Your task to perform on an android device: Is it going to rain tomorrow? Image 0: 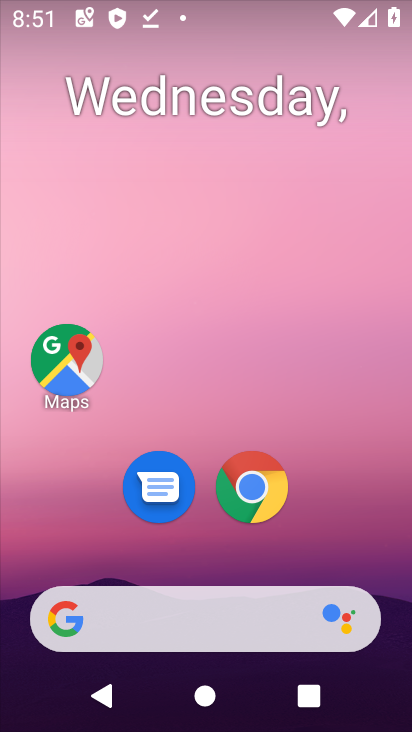
Step 0: drag from (194, 255) to (198, 132)
Your task to perform on an android device: Is it going to rain tomorrow? Image 1: 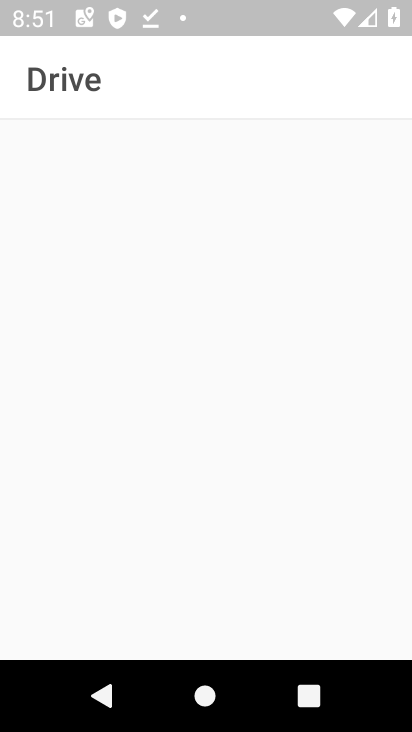
Step 1: drag from (257, 572) to (198, 202)
Your task to perform on an android device: Is it going to rain tomorrow? Image 2: 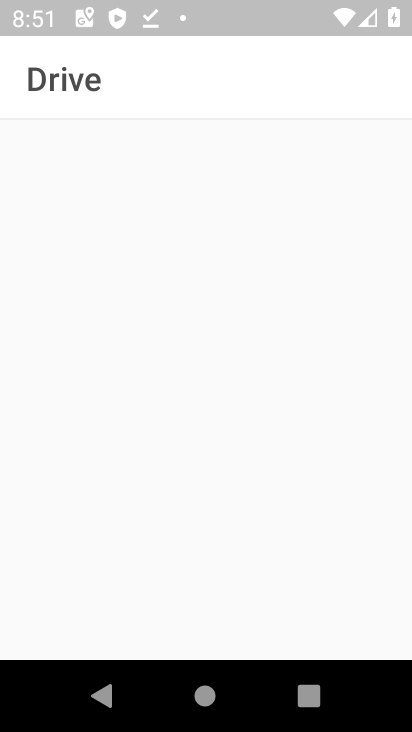
Step 2: press back button
Your task to perform on an android device: Is it going to rain tomorrow? Image 3: 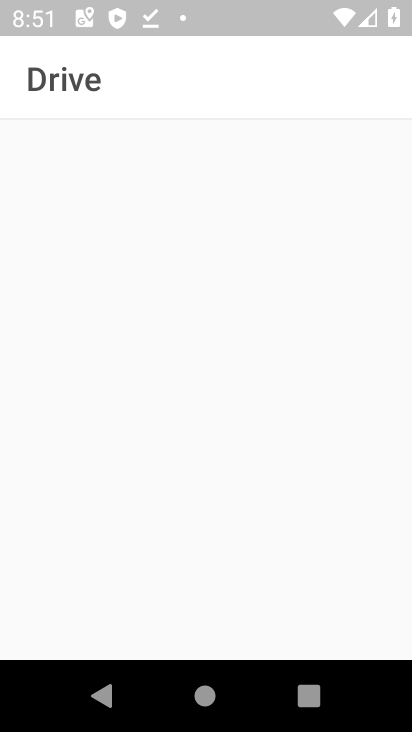
Step 3: click (153, 216)
Your task to perform on an android device: Is it going to rain tomorrow? Image 4: 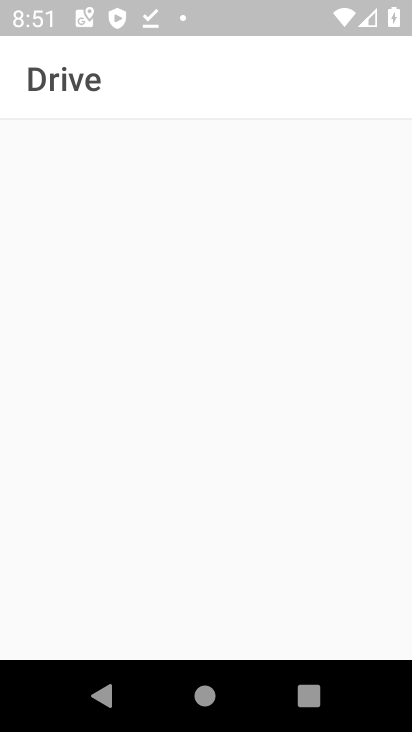
Step 4: press back button
Your task to perform on an android device: Is it going to rain tomorrow? Image 5: 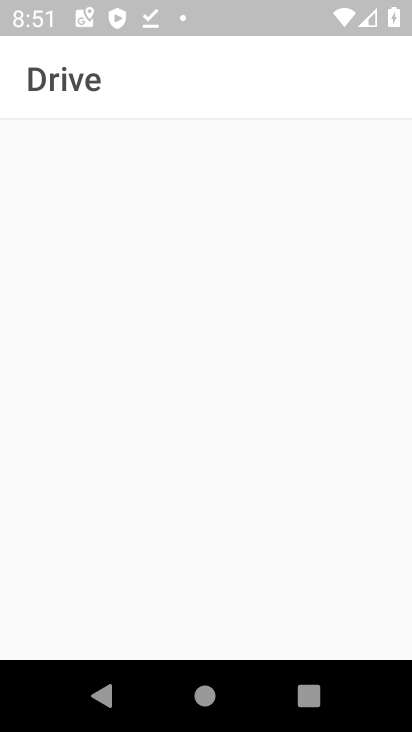
Step 5: press home button
Your task to perform on an android device: Is it going to rain tomorrow? Image 6: 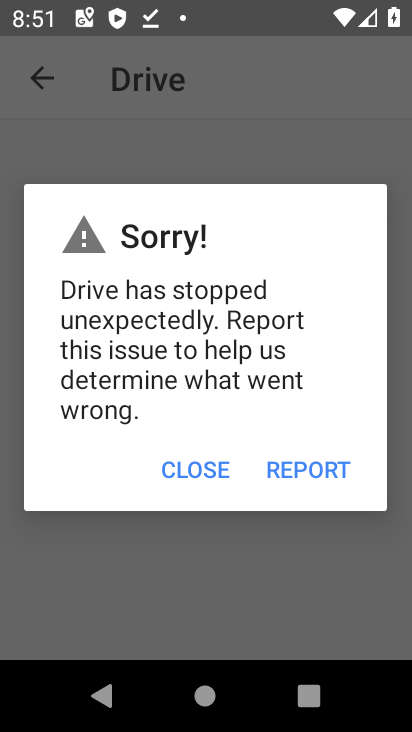
Step 6: press home button
Your task to perform on an android device: Is it going to rain tomorrow? Image 7: 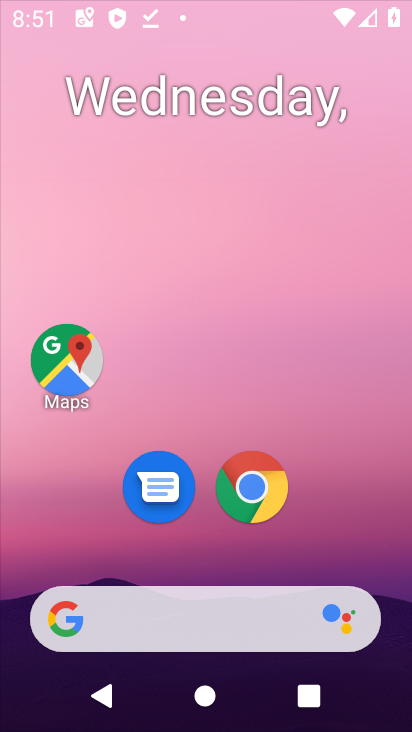
Step 7: press back button
Your task to perform on an android device: Is it going to rain tomorrow? Image 8: 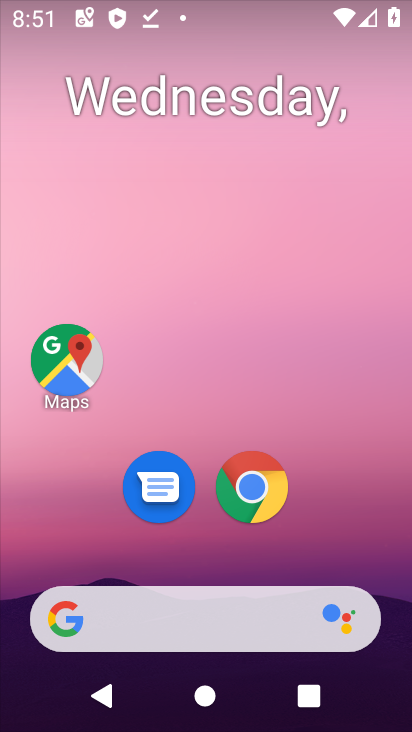
Step 8: drag from (11, 205) to (389, 278)
Your task to perform on an android device: Is it going to rain tomorrow? Image 9: 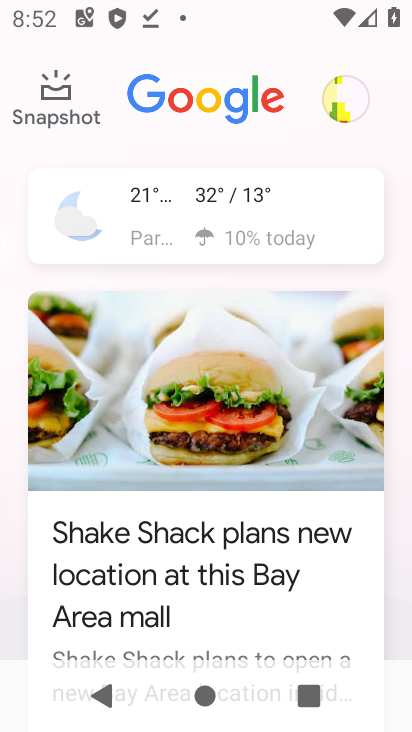
Step 9: click (186, 180)
Your task to perform on an android device: Is it going to rain tomorrow? Image 10: 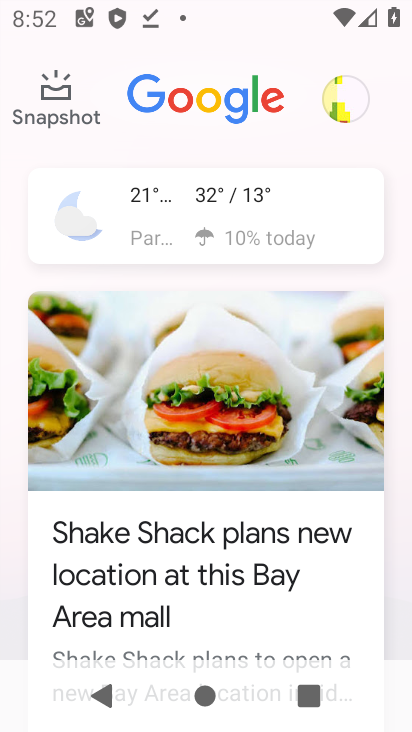
Step 10: click (193, 180)
Your task to perform on an android device: Is it going to rain tomorrow? Image 11: 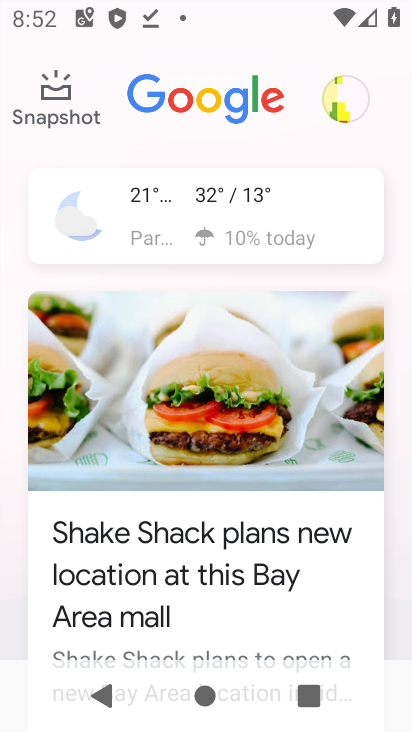
Step 11: click (196, 182)
Your task to perform on an android device: Is it going to rain tomorrow? Image 12: 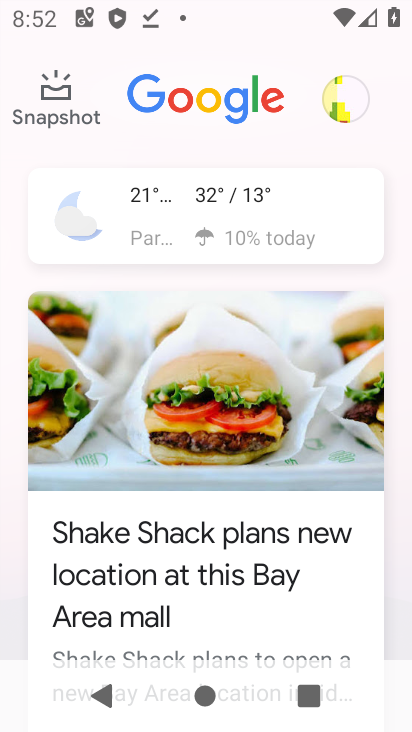
Step 12: click (199, 182)
Your task to perform on an android device: Is it going to rain tomorrow? Image 13: 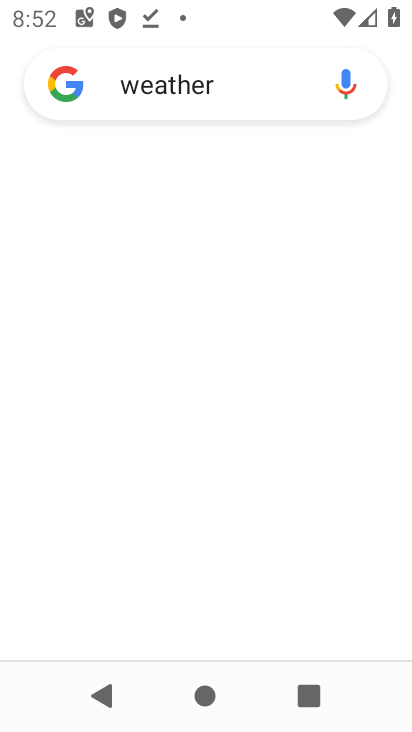
Step 13: click (199, 182)
Your task to perform on an android device: Is it going to rain tomorrow? Image 14: 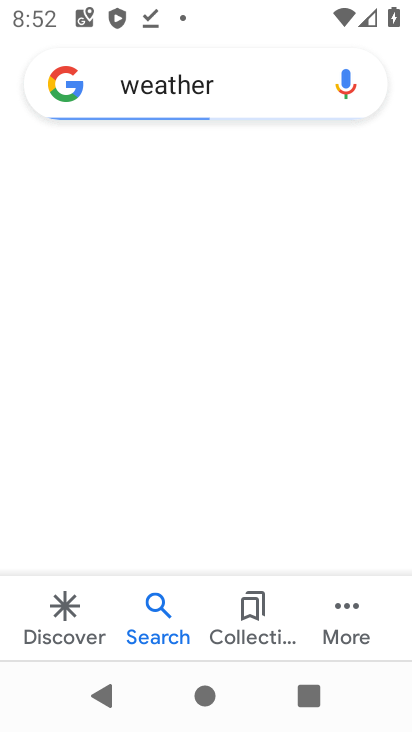
Step 14: click (205, 184)
Your task to perform on an android device: Is it going to rain tomorrow? Image 15: 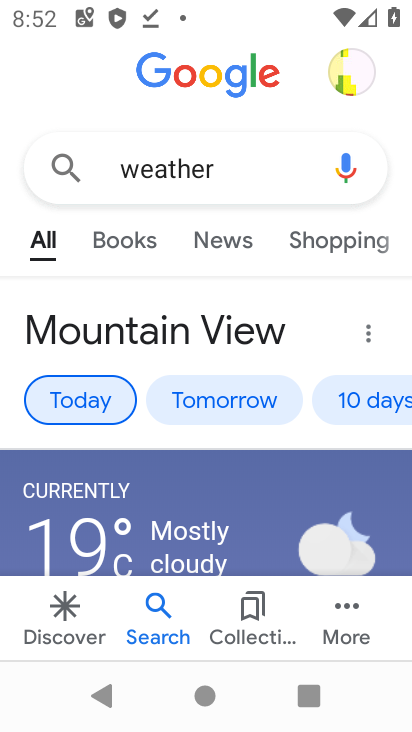
Step 15: click (212, 403)
Your task to perform on an android device: Is it going to rain tomorrow? Image 16: 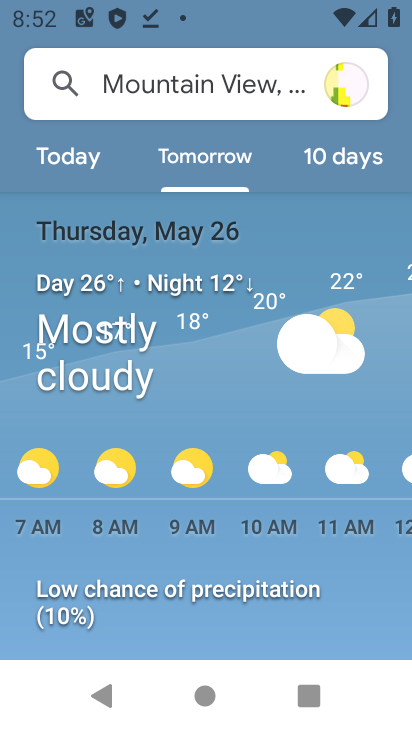
Step 16: task complete